Your task to perform on an android device: Go to internet settings Image 0: 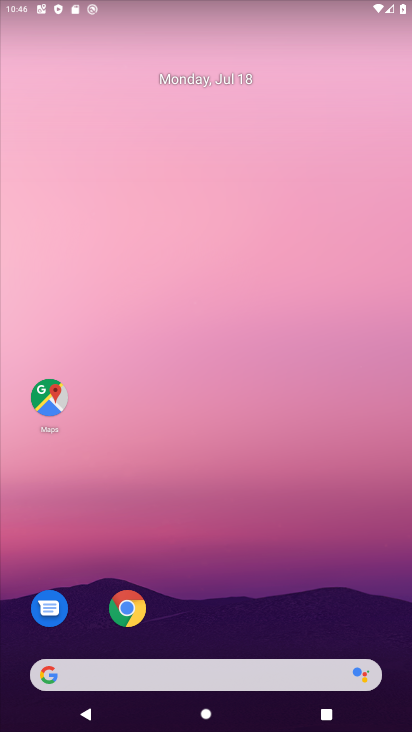
Step 0: drag from (246, 561) to (268, 90)
Your task to perform on an android device: Go to internet settings Image 1: 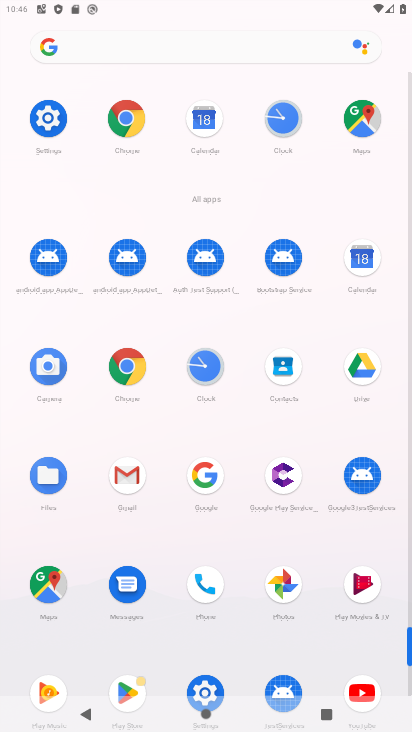
Step 1: drag from (204, 657) to (222, 501)
Your task to perform on an android device: Go to internet settings Image 2: 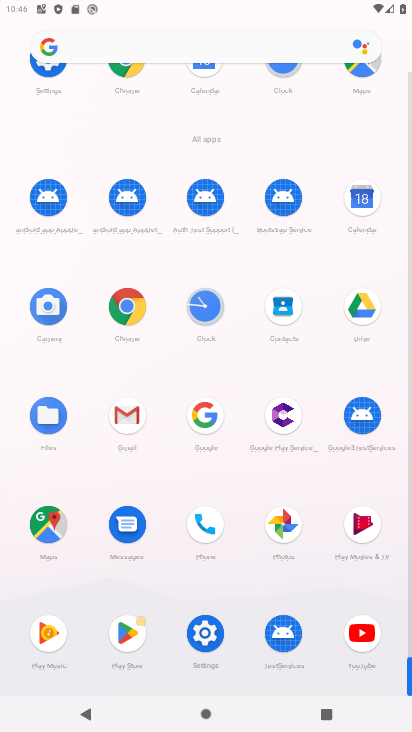
Step 2: click (208, 627)
Your task to perform on an android device: Go to internet settings Image 3: 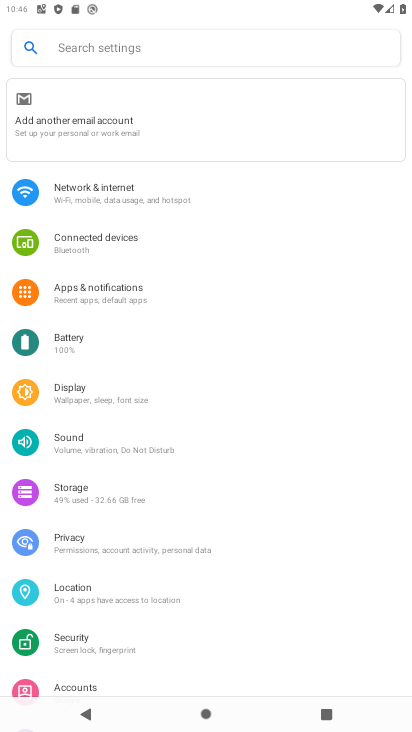
Step 3: click (159, 194)
Your task to perform on an android device: Go to internet settings Image 4: 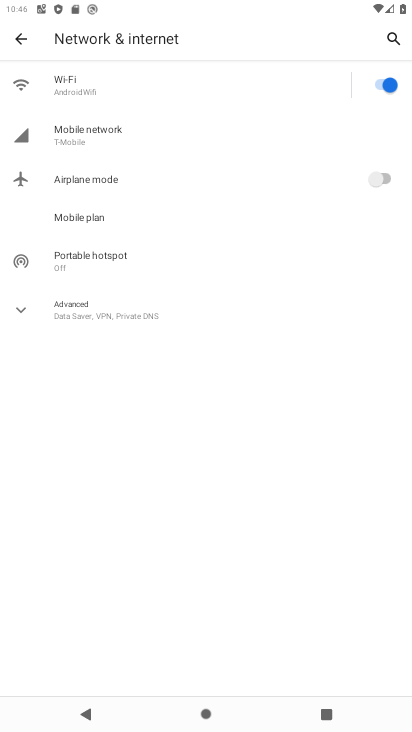
Step 4: task complete